Your task to perform on an android device: uninstall "Google Translate" Image 0: 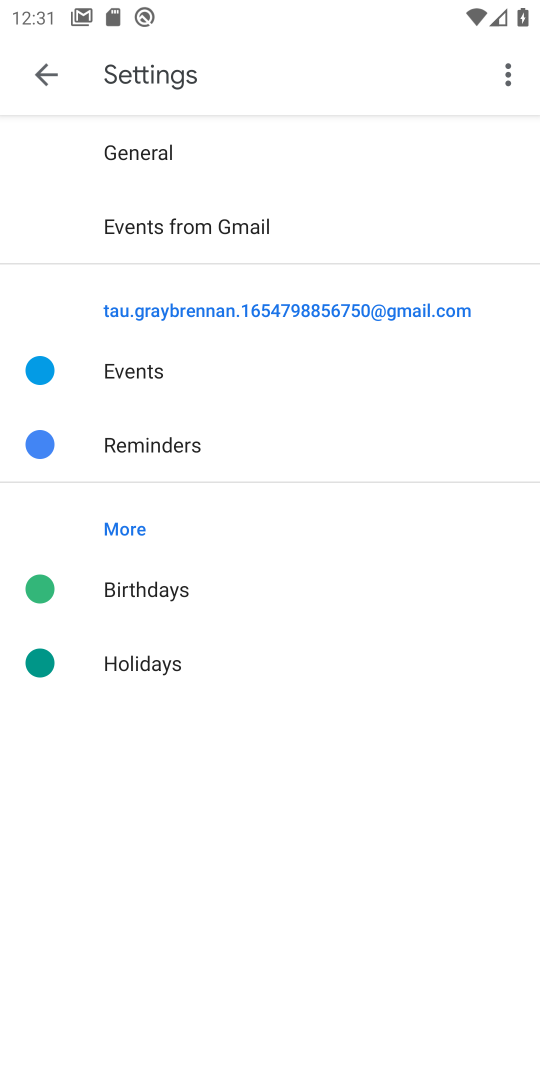
Step 0: press home button
Your task to perform on an android device: uninstall "Google Translate" Image 1: 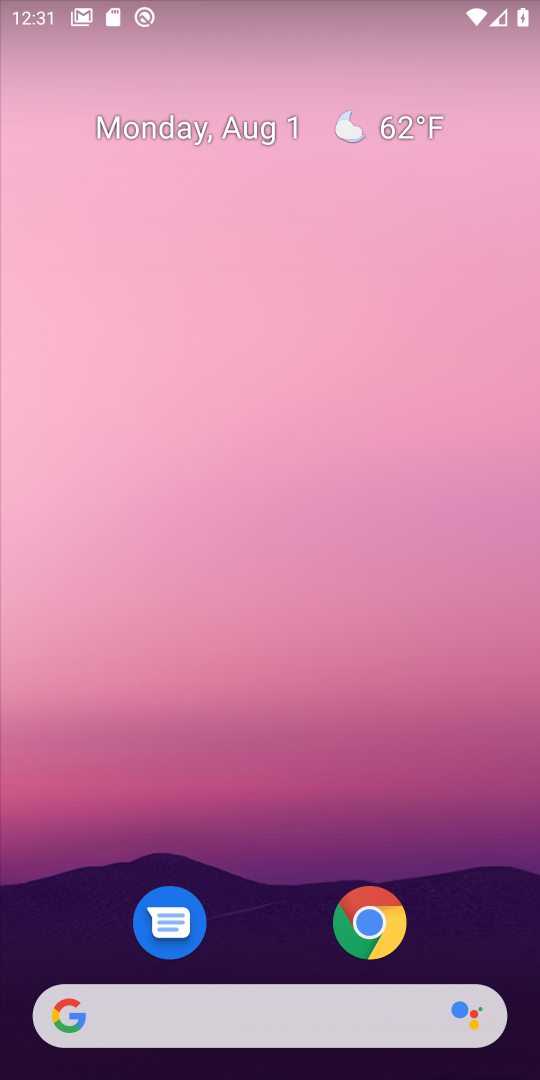
Step 1: drag from (262, 878) to (225, 245)
Your task to perform on an android device: uninstall "Google Translate" Image 2: 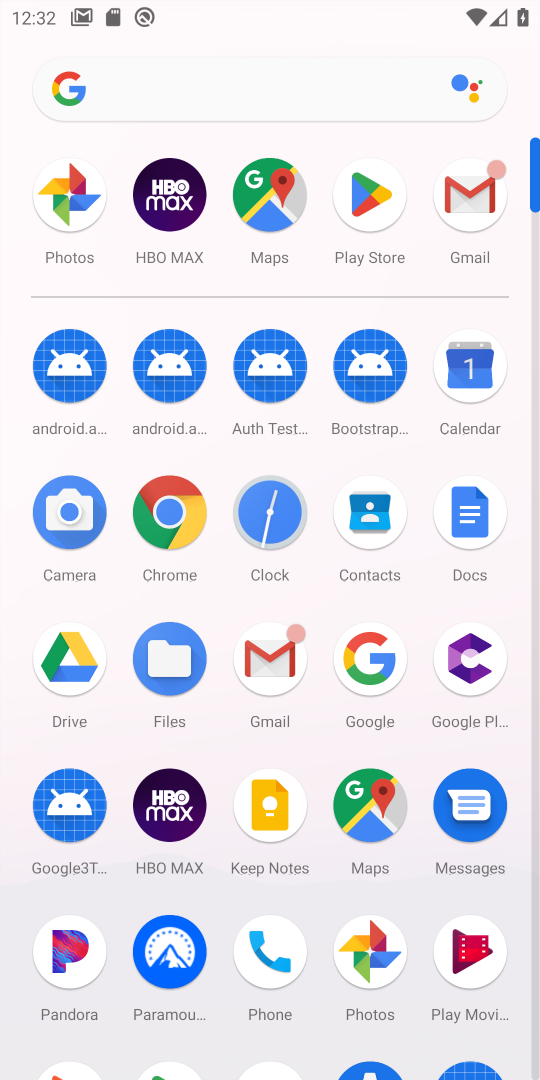
Step 2: click (342, 219)
Your task to perform on an android device: uninstall "Google Translate" Image 3: 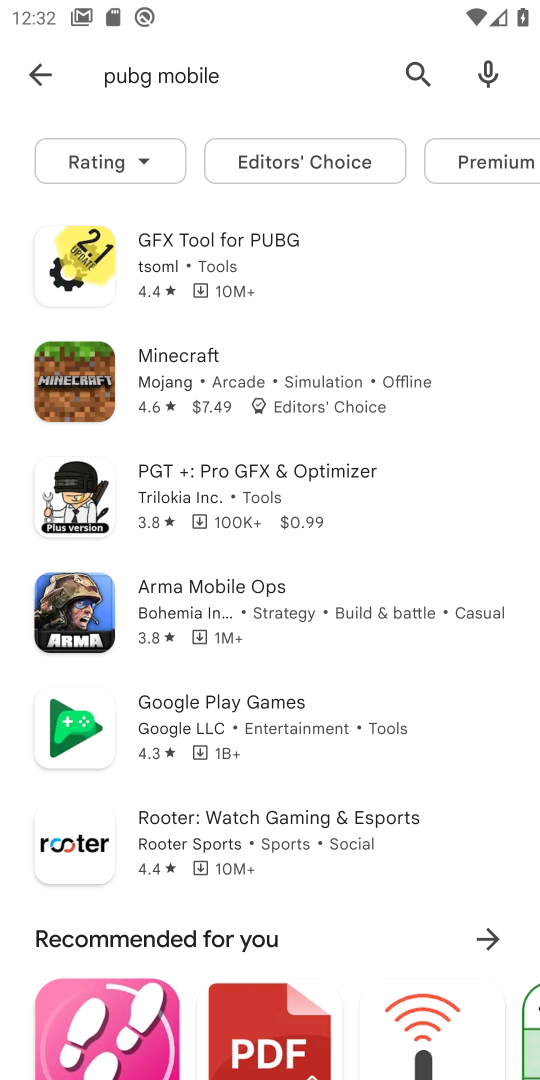
Step 3: click (405, 85)
Your task to perform on an android device: uninstall "Google Translate" Image 4: 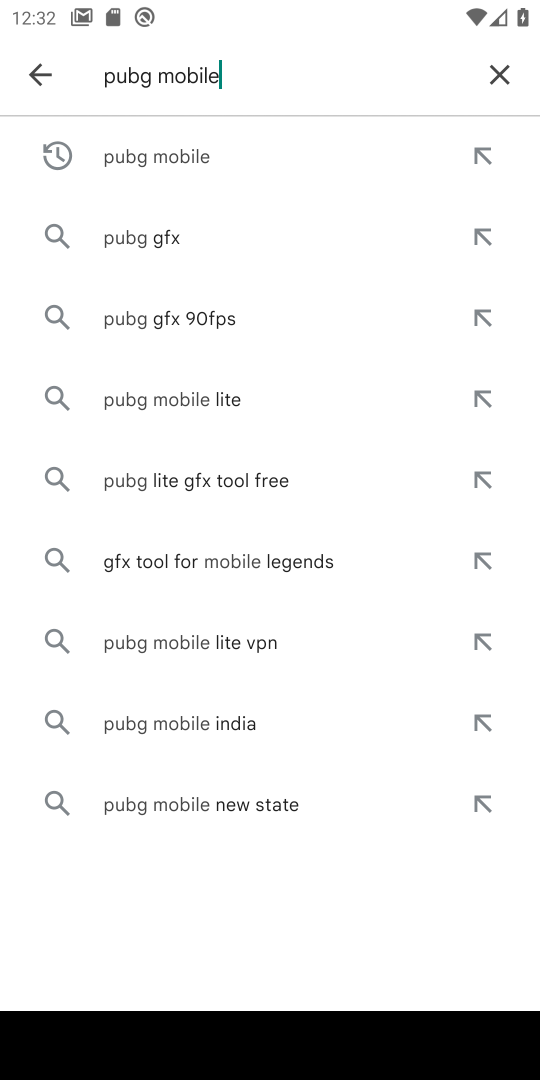
Step 4: click (481, 64)
Your task to perform on an android device: uninstall "Google Translate" Image 5: 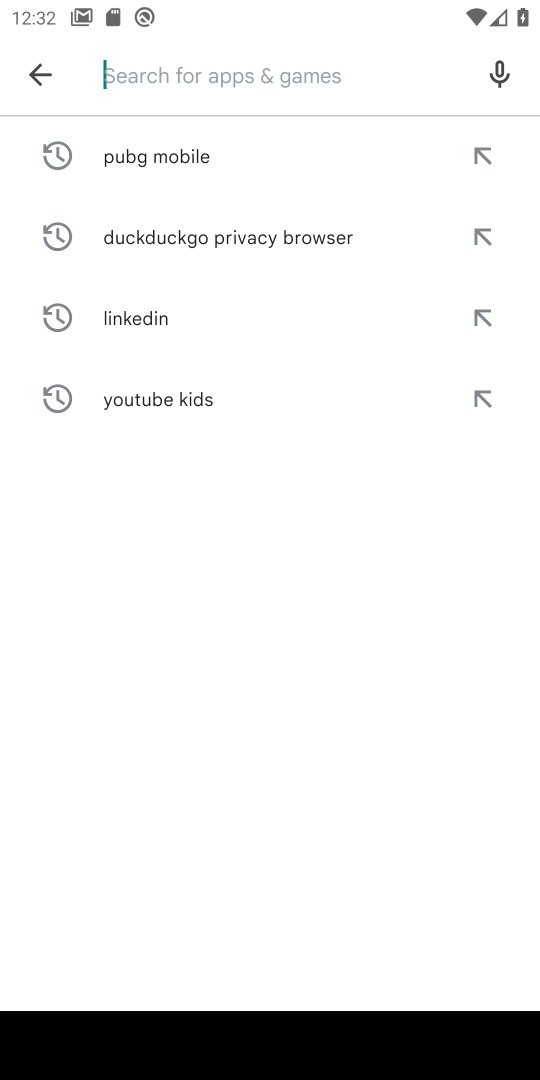
Step 5: type "Google Translate"
Your task to perform on an android device: uninstall "Google Translate" Image 6: 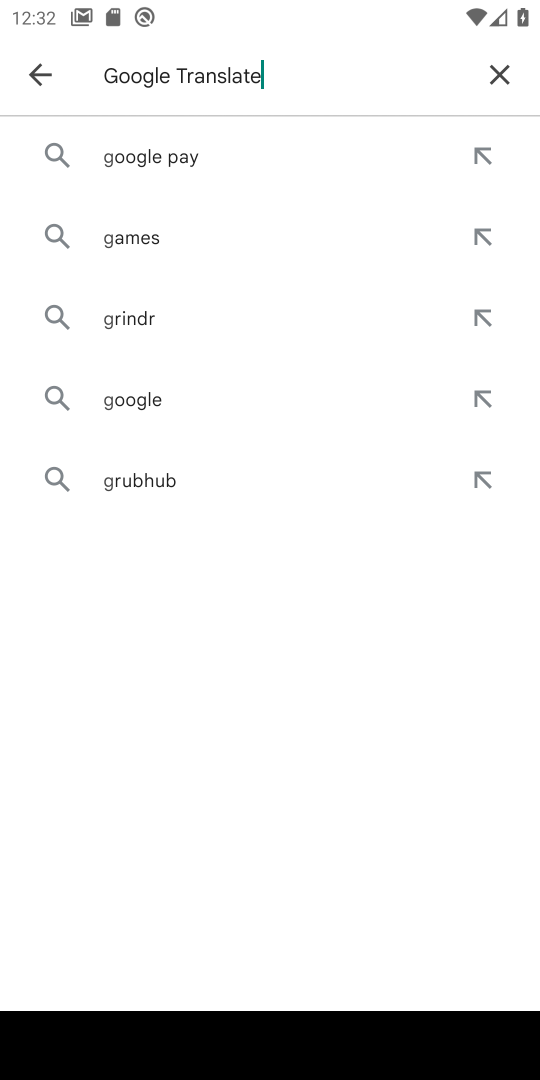
Step 6: type ""
Your task to perform on an android device: uninstall "Google Translate" Image 7: 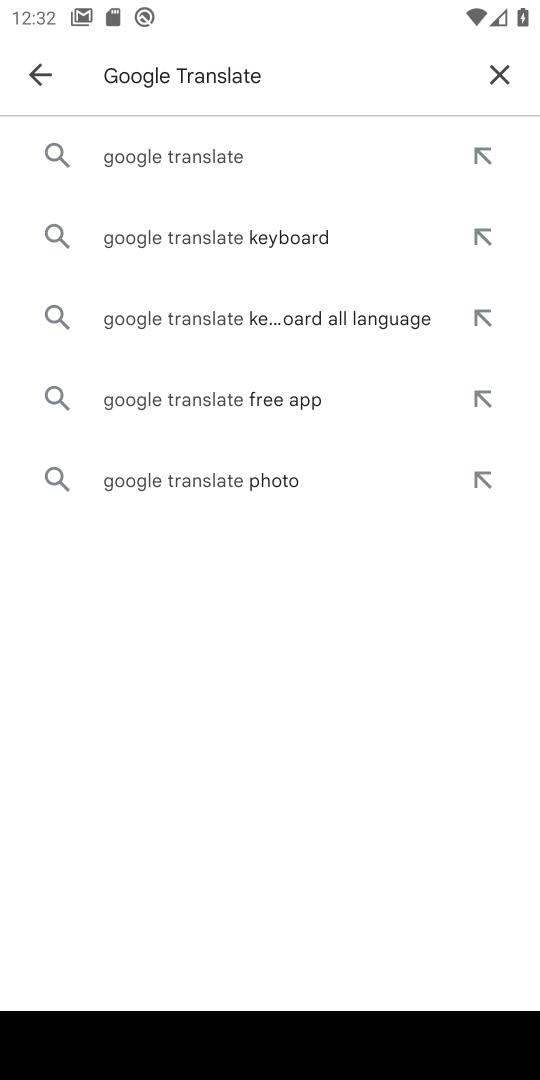
Step 7: click (205, 162)
Your task to perform on an android device: uninstall "Google Translate" Image 8: 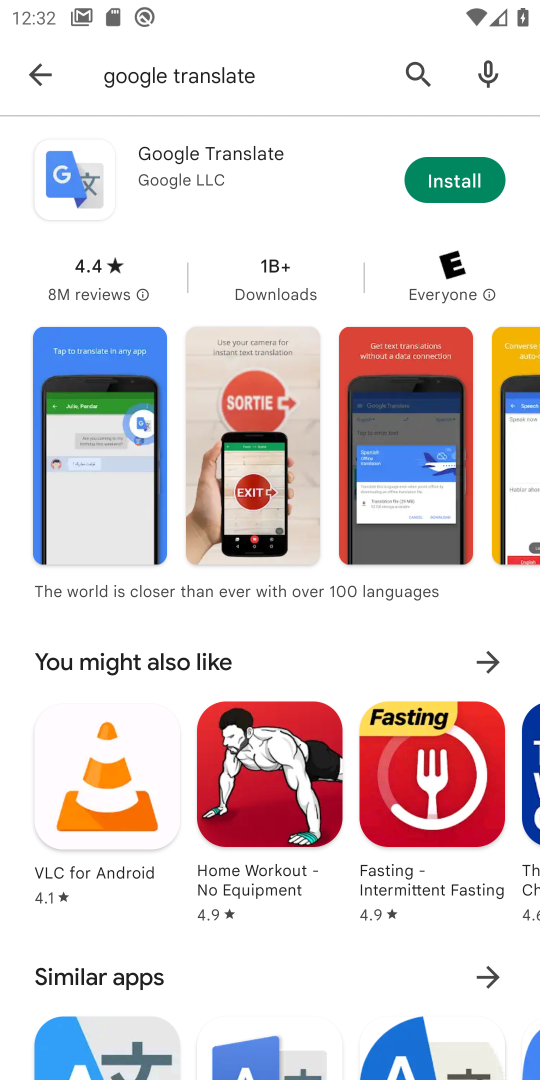
Step 8: task complete